Your task to perform on an android device: turn on translation in the chrome app Image 0: 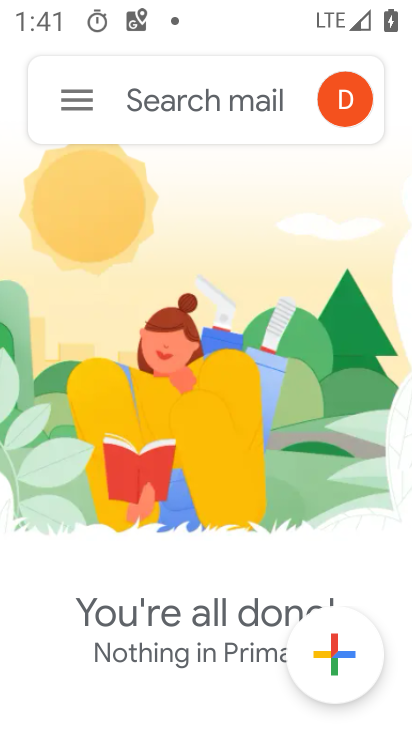
Step 0: press home button
Your task to perform on an android device: turn on translation in the chrome app Image 1: 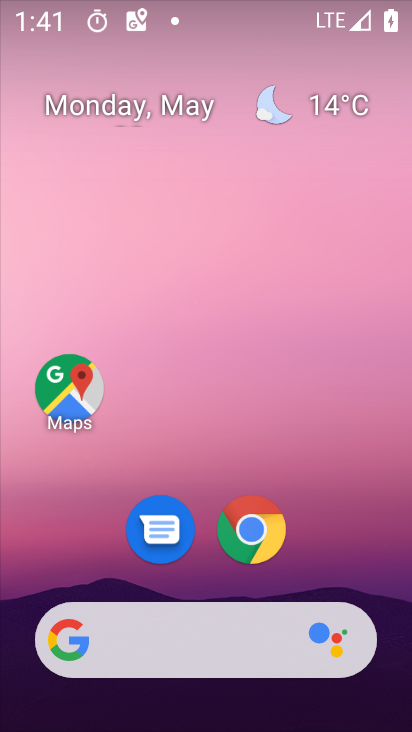
Step 1: drag from (377, 581) to (361, 291)
Your task to perform on an android device: turn on translation in the chrome app Image 2: 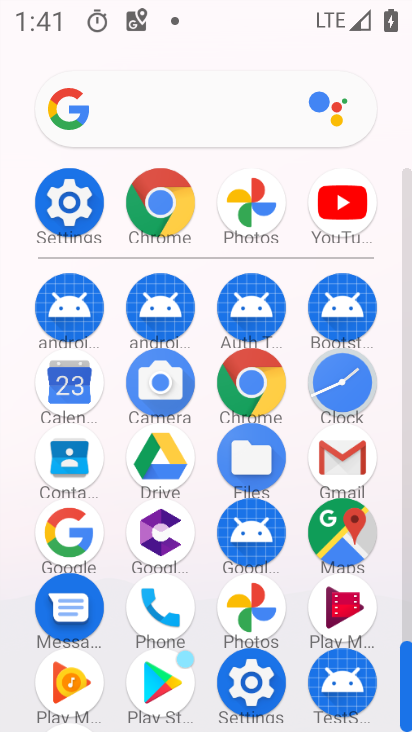
Step 2: click (256, 383)
Your task to perform on an android device: turn on translation in the chrome app Image 3: 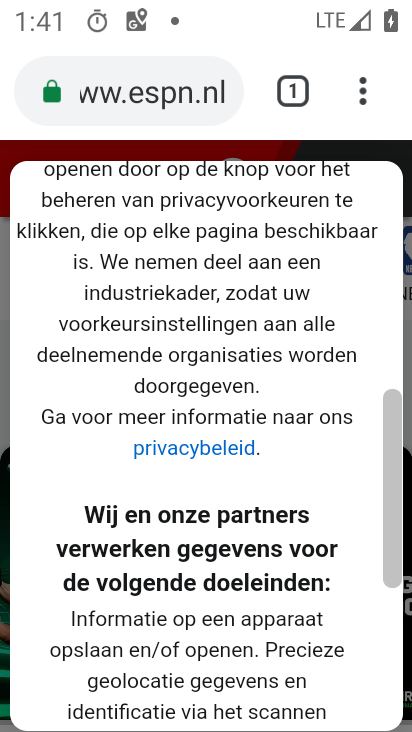
Step 3: click (361, 106)
Your task to perform on an android device: turn on translation in the chrome app Image 4: 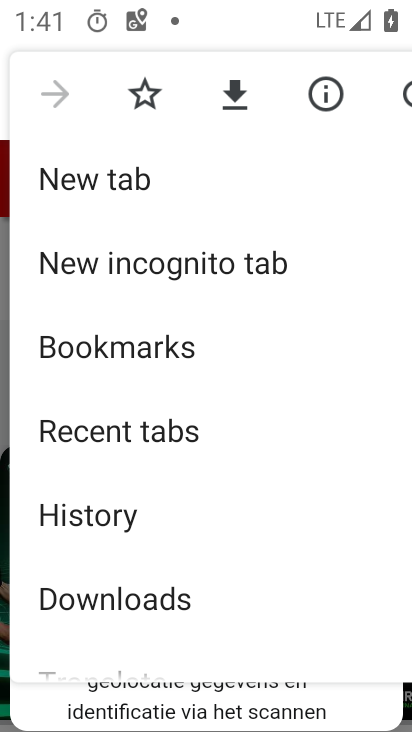
Step 4: drag from (318, 481) to (320, 340)
Your task to perform on an android device: turn on translation in the chrome app Image 5: 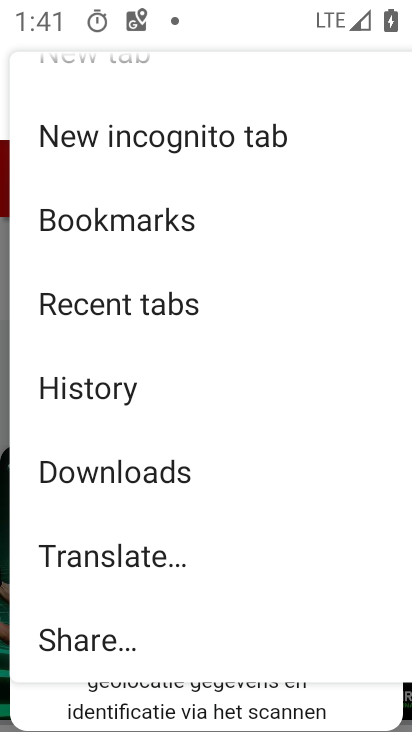
Step 5: drag from (317, 544) to (325, 391)
Your task to perform on an android device: turn on translation in the chrome app Image 6: 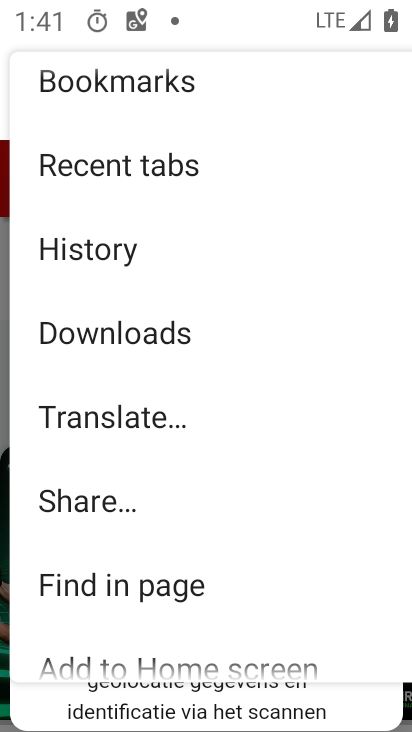
Step 6: drag from (276, 567) to (282, 388)
Your task to perform on an android device: turn on translation in the chrome app Image 7: 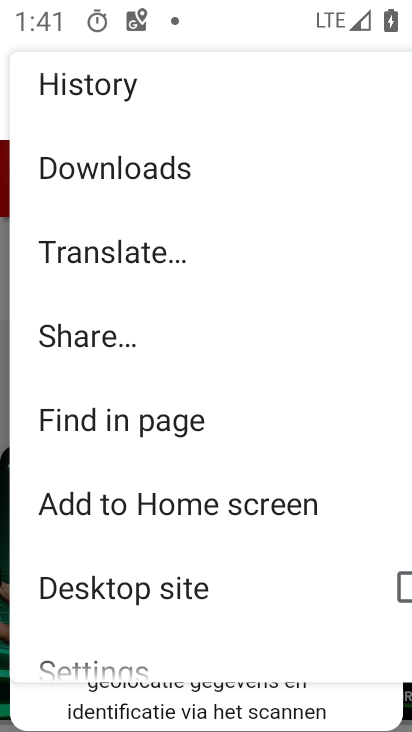
Step 7: drag from (279, 585) to (295, 411)
Your task to perform on an android device: turn on translation in the chrome app Image 8: 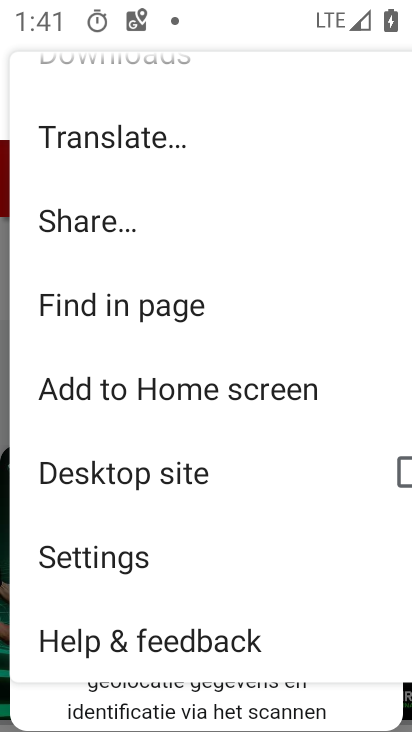
Step 8: click (168, 578)
Your task to perform on an android device: turn on translation in the chrome app Image 9: 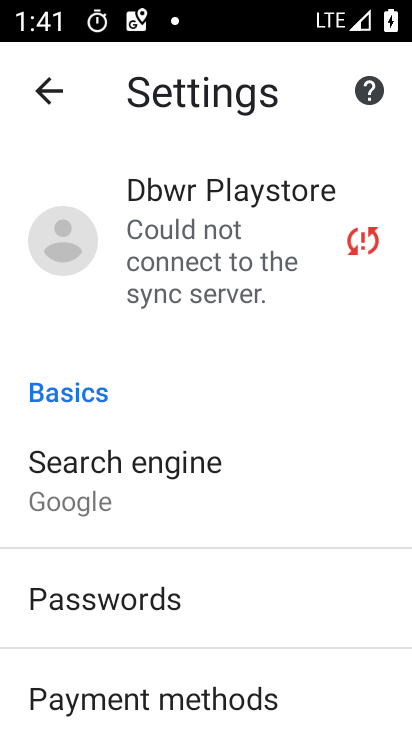
Step 9: drag from (338, 607) to (340, 531)
Your task to perform on an android device: turn on translation in the chrome app Image 10: 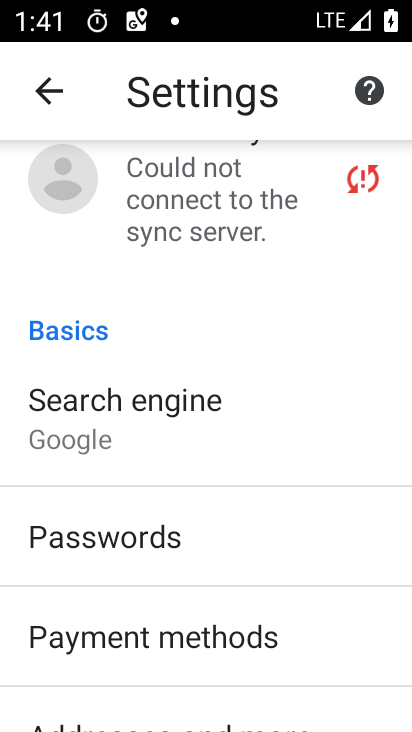
Step 10: drag from (353, 621) to (352, 537)
Your task to perform on an android device: turn on translation in the chrome app Image 11: 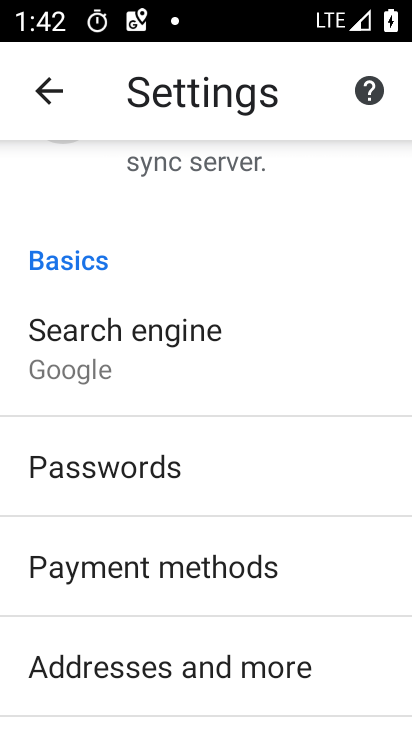
Step 11: drag from (352, 622) to (354, 538)
Your task to perform on an android device: turn on translation in the chrome app Image 12: 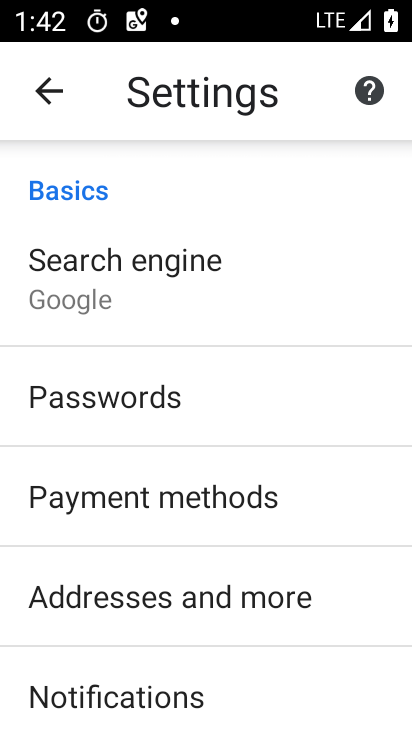
Step 12: drag from (355, 639) to (365, 589)
Your task to perform on an android device: turn on translation in the chrome app Image 13: 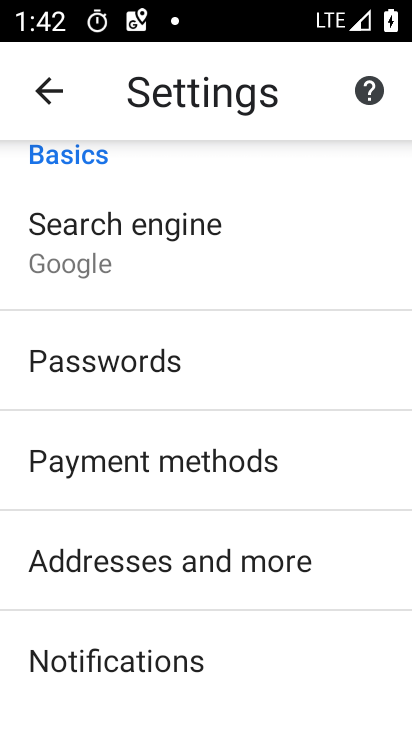
Step 13: drag from (356, 630) to (350, 504)
Your task to perform on an android device: turn on translation in the chrome app Image 14: 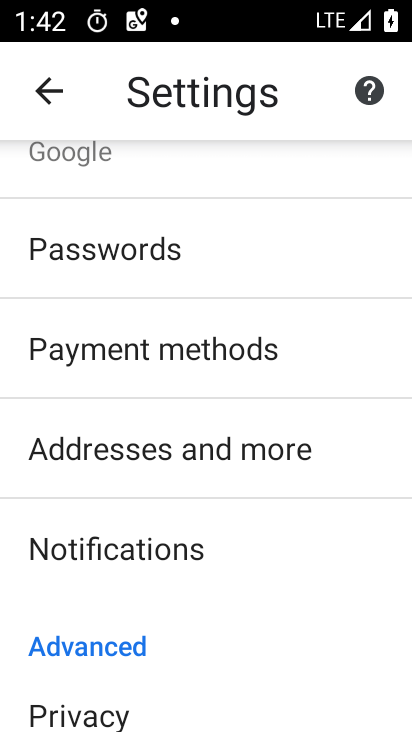
Step 14: drag from (332, 618) to (345, 481)
Your task to perform on an android device: turn on translation in the chrome app Image 15: 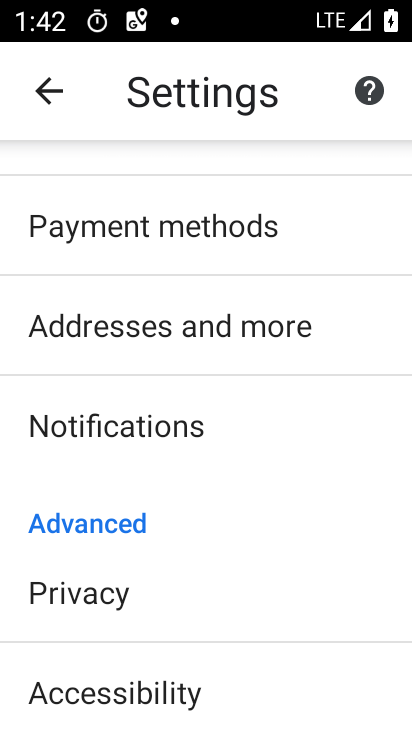
Step 15: drag from (318, 645) to (321, 475)
Your task to perform on an android device: turn on translation in the chrome app Image 16: 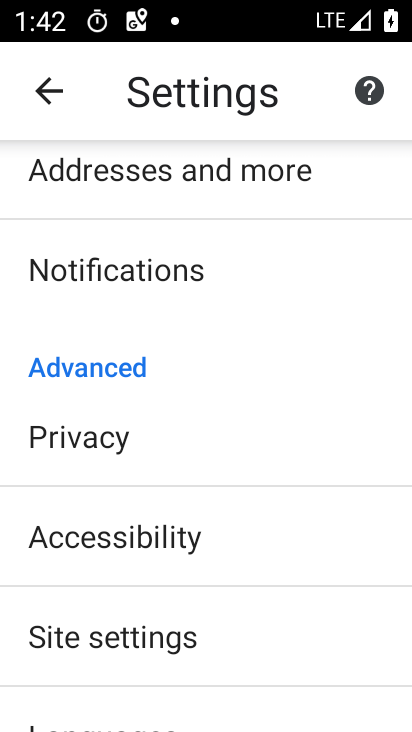
Step 16: drag from (350, 625) to (347, 467)
Your task to perform on an android device: turn on translation in the chrome app Image 17: 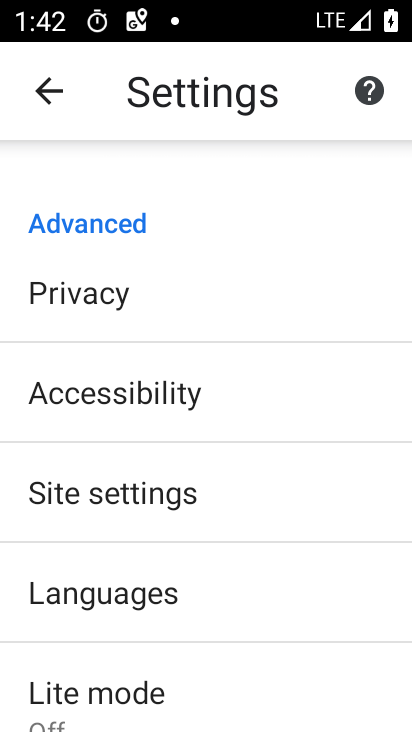
Step 17: click (359, 607)
Your task to perform on an android device: turn on translation in the chrome app Image 18: 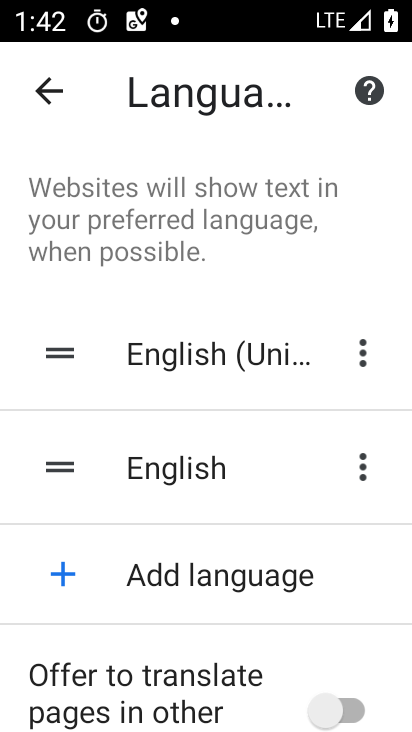
Step 18: drag from (293, 643) to (288, 486)
Your task to perform on an android device: turn on translation in the chrome app Image 19: 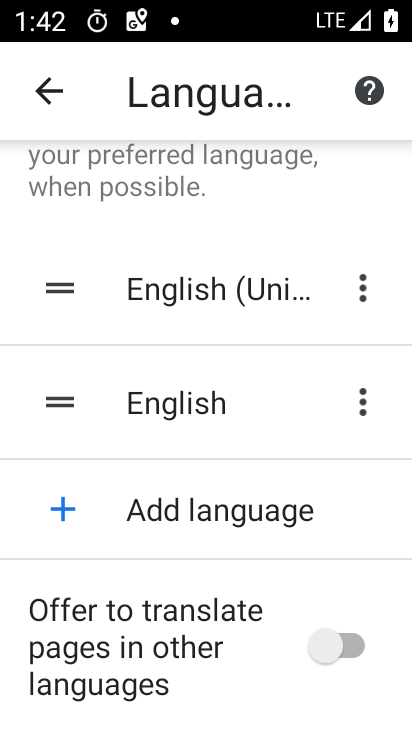
Step 19: click (319, 651)
Your task to perform on an android device: turn on translation in the chrome app Image 20: 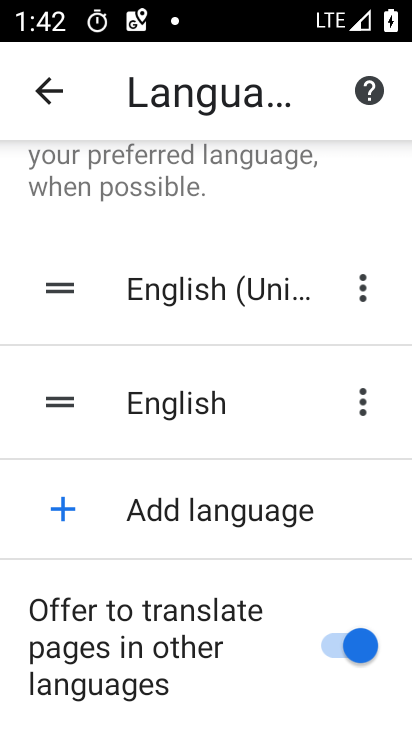
Step 20: task complete